Your task to perform on an android device: Do I have any events this weekend? Image 0: 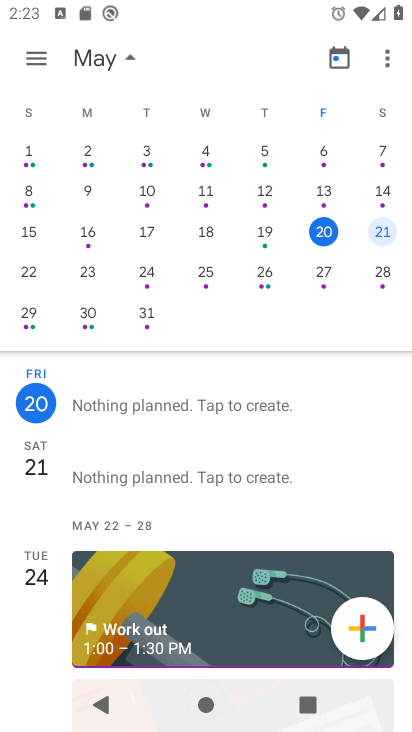
Step 0: press home button
Your task to perform on an android device: Do I have any events this weekend? Image 1: 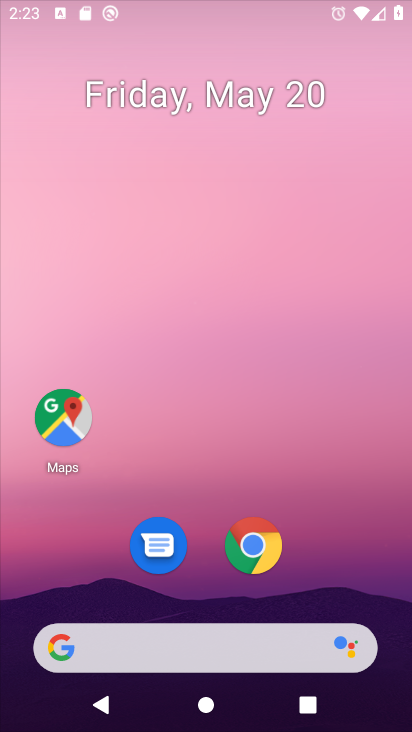
Step 1: drag from (237, 573) to (329, 45)
Your task to perform on an android device: Do I have any events this weekend? Image 2: 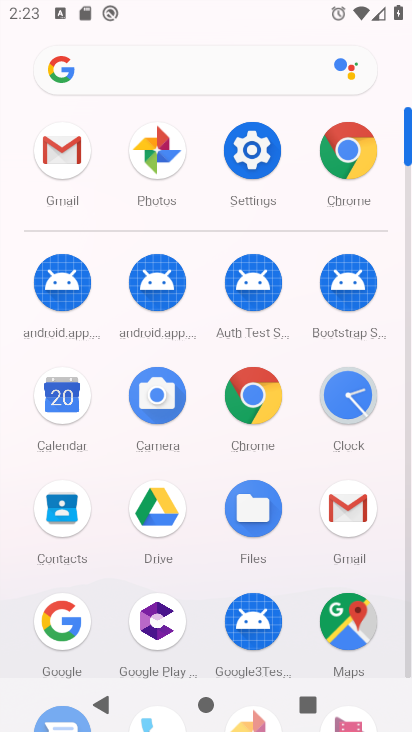
Step 2: click (76, 395)
Your task to perform on an android device: Do I have any events this weekend? Image 3: 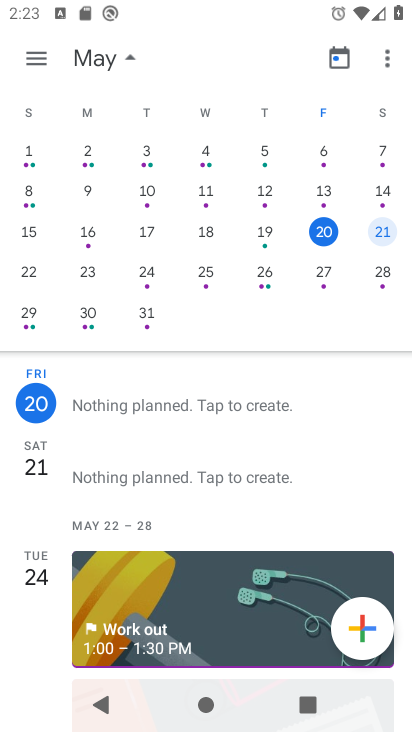
Step 3: click (386, 227)
Your task to perform on an android device: Do I have any events this weekend? Image 4: 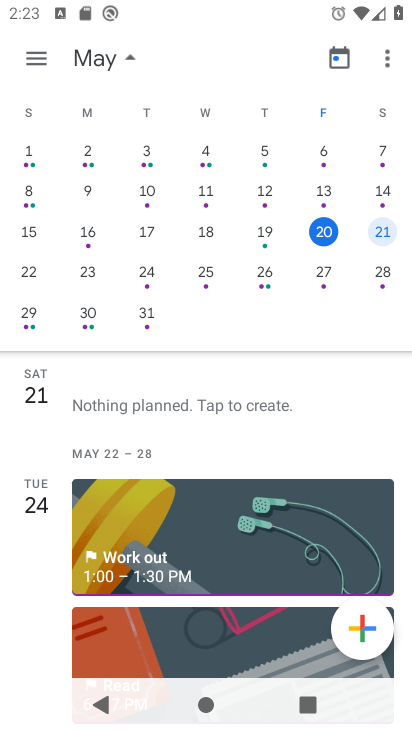
Step 4: click (384, 227)
Your task to perform on an android device: Do I have any events this weekend? Image 5: 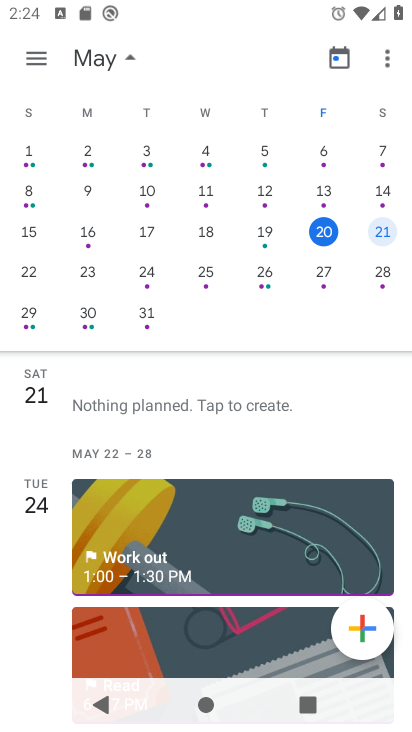
Step 5: click (376, 235)
Your task to perform on an android device: Do I have any events this weekend? Image 6: 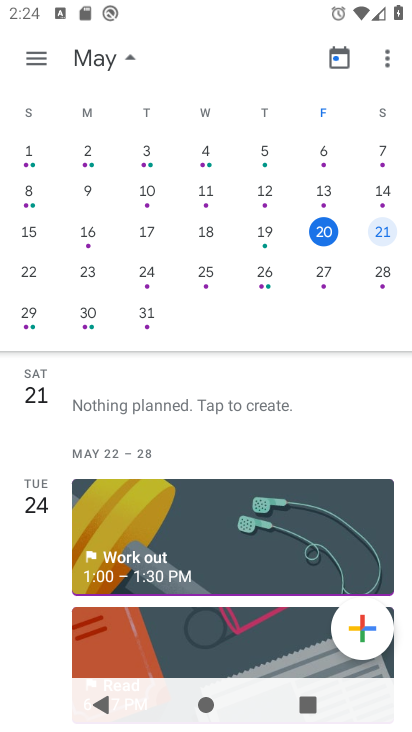
Step 6: task complete